Your task to perform on an android device: Open location settings Image 0: 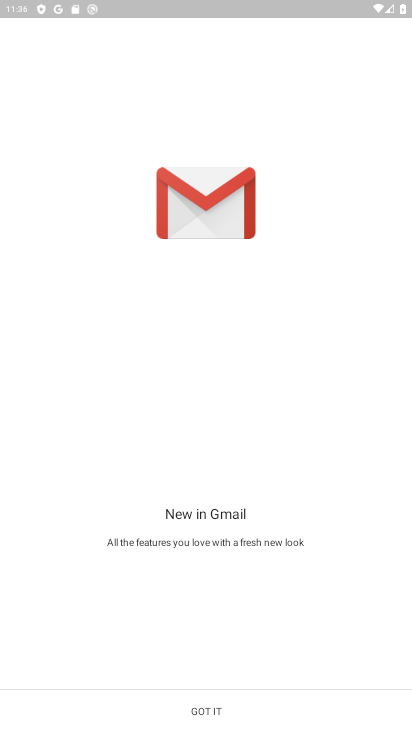
Step 0: click (195, 713)
Your task to perform on an android device: Open location settings Image 1: 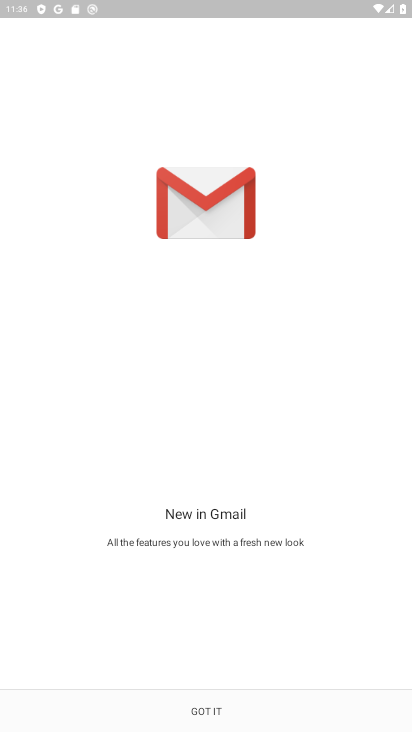
Step 1: click (194, 711)
Your task to perform on an android device: Open location settings Image 2: 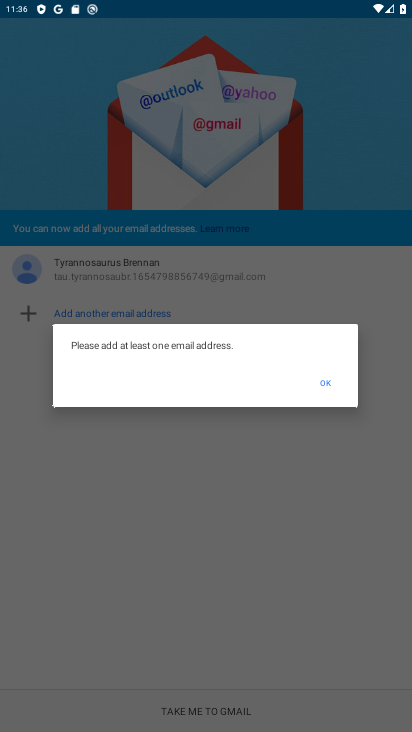
Step 2: click (330, 379)
Your task to perform on an android device: Open location settings Image 3: 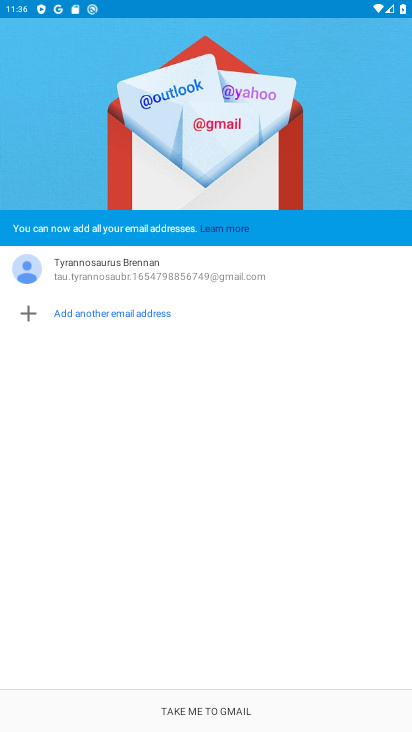
Step 3: click (328, 379)
Your task to perform on an android device: Open location settings Image 4: 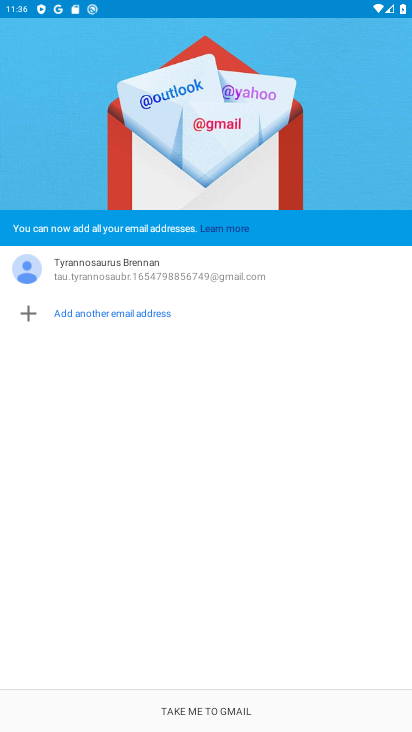
Step 4: click (187, 715)
Your task to perform on an android device: Open location settings Image 5: 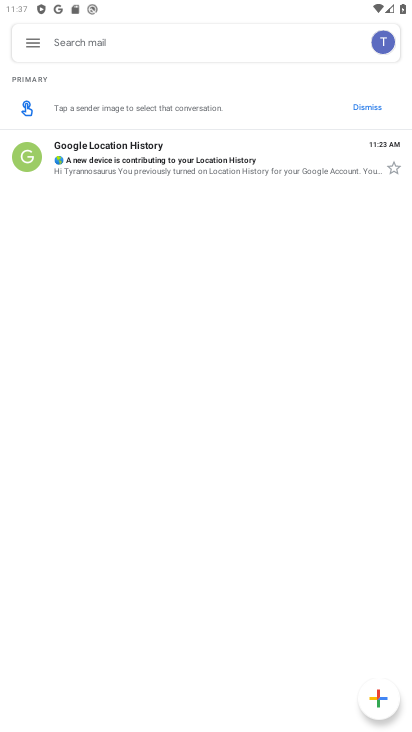
Step 5: press home button
Your task to perform on an android device: Open location settings Image 6: 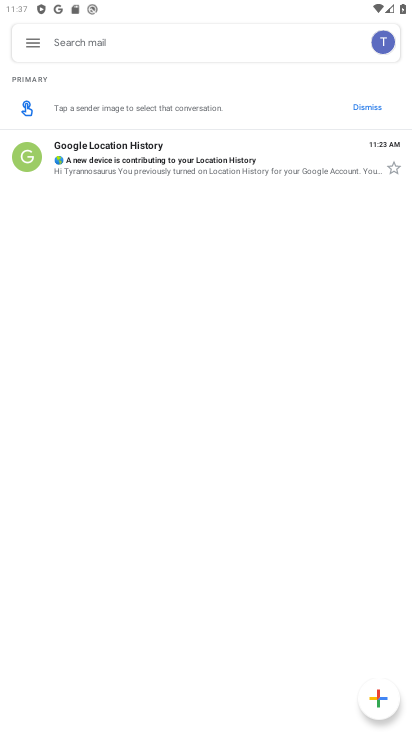
Step 6: press home button
Your task to perform on an android device: Open location settings Image 7: 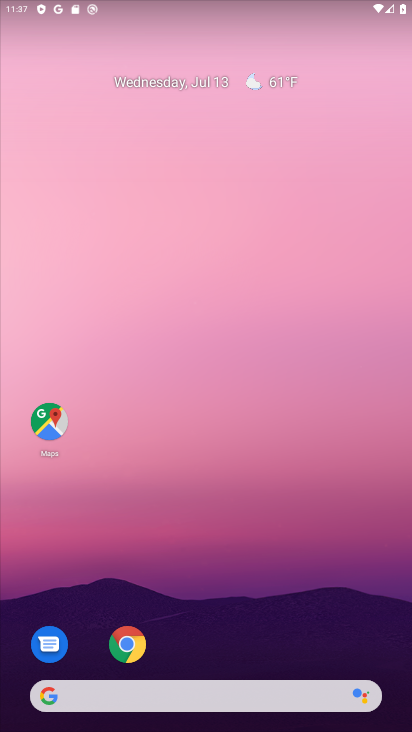
Step 7: drag from (214, 623) to (249, 0)
Your task to perform on an android device: Open location settings Image 8: 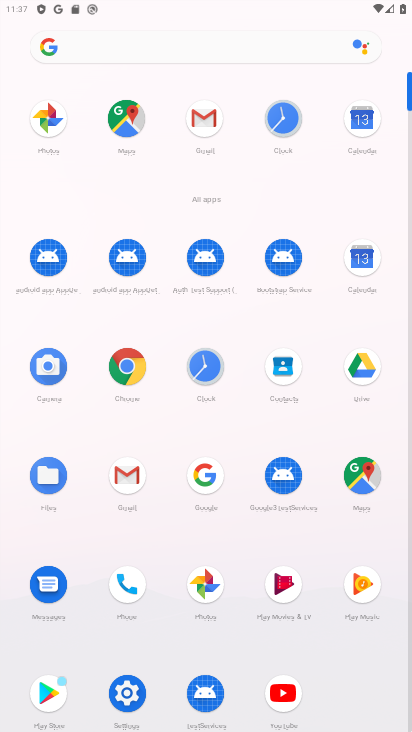
Step 8: click (113, 699)
Your task to perform on an android device: Open location settings Image 9: 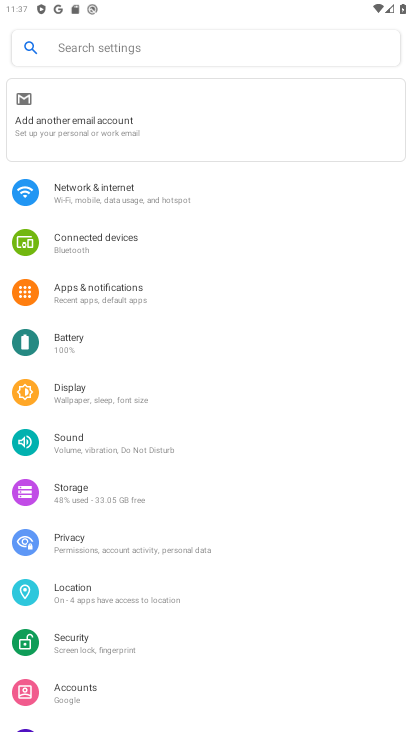
Step 9: click (64, 584)
Your task to perform on an android device: Open location settings Image 10: 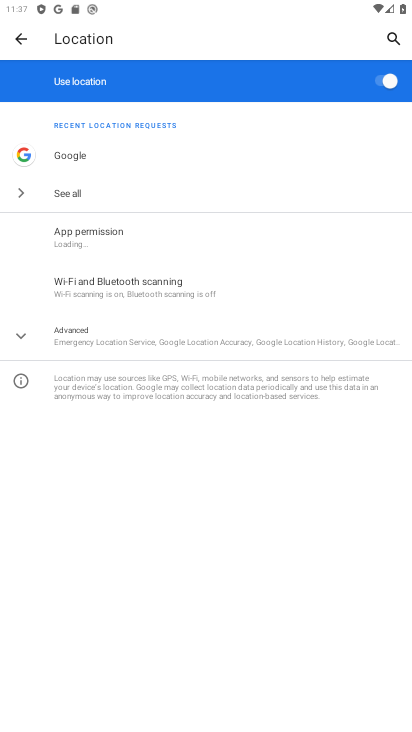
Step 10: click (76, 336)
Your task to perform on an android device: Open location settings Image 11: 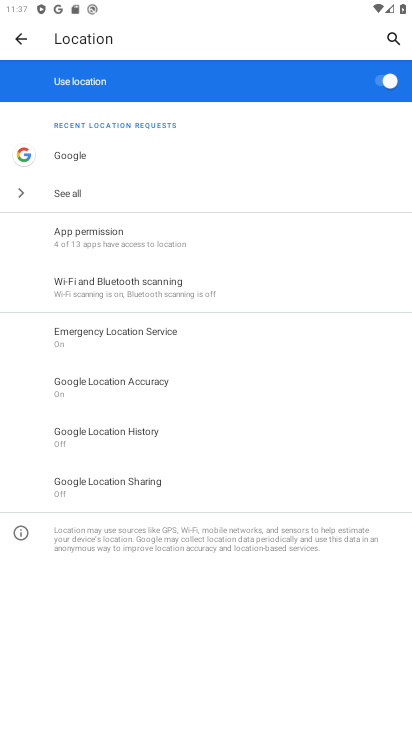
Step 11: task complete